Your task to perform on an android device: turn smart compose on in the gmail app Image 0: 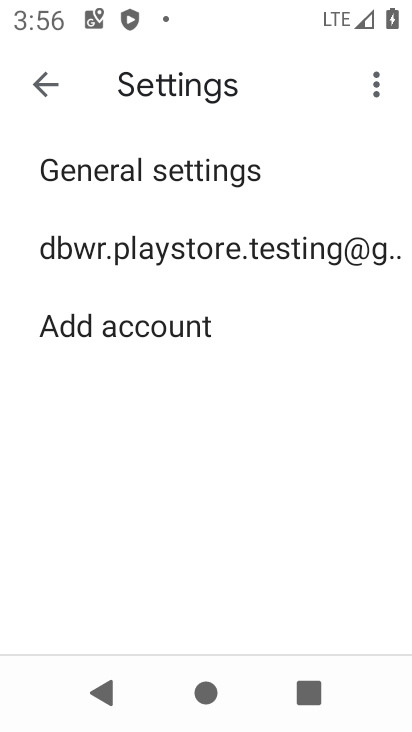
Step 0: click (233, 245)
Your task to perform on an android device: turn smart compose on in the gmail app Image 1: 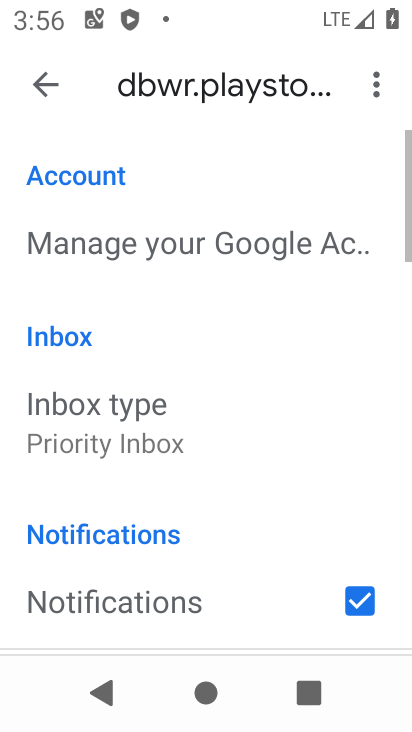
Step 1: task complete